Your task to perform on an android device: turn off sleep mode Image 0: 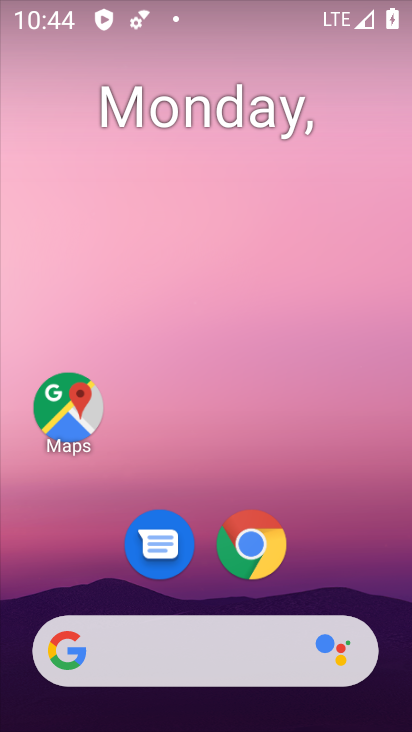
Step 0: click (400, 293)
Your task to perform on an android device: turn off sleep mode Image 1: 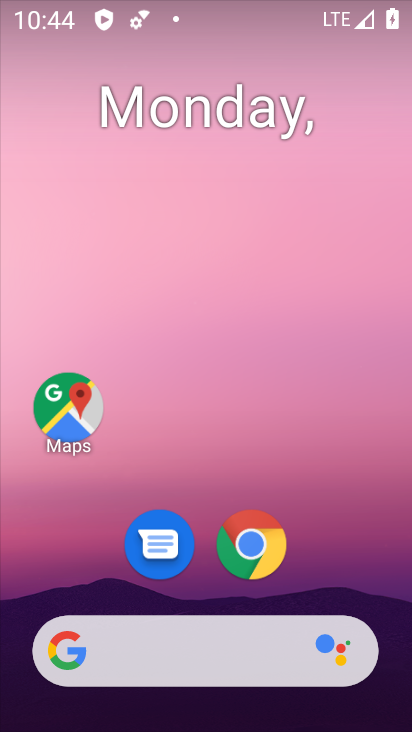
Step 1: drag from (403, 458) to (403, 368)
Your task to perform on an android device: turn off sleep mode Image 2: 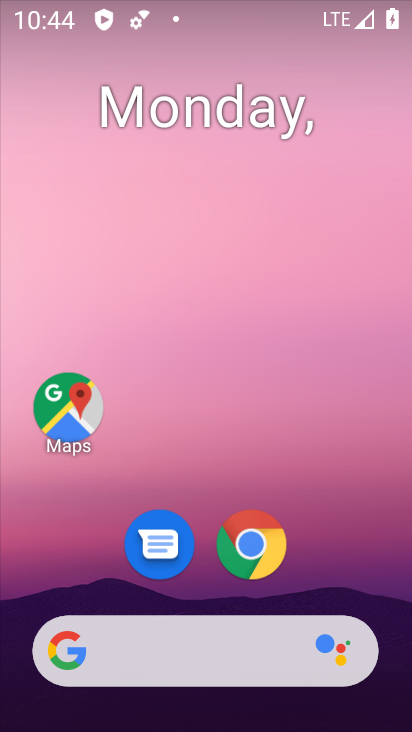
Step 2: drag from (398, 536) to (386, 260)
Your task to perform on an android device: turn off sleep mode Image 3: 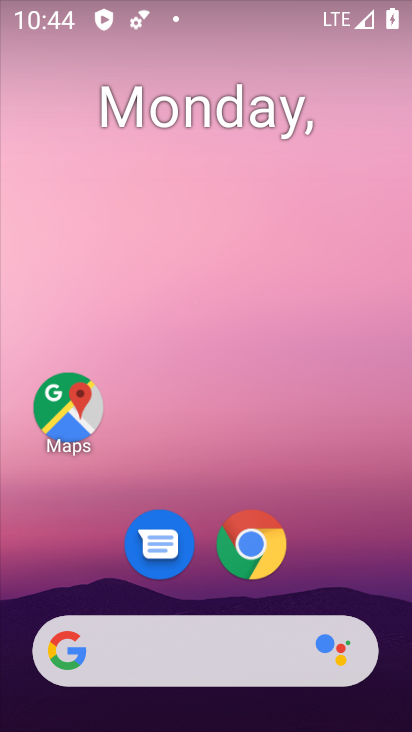
Step 3: drag from (390, 668) to (408, 253)
Your task to perform on an android device: turn off sleep mode Image 4: 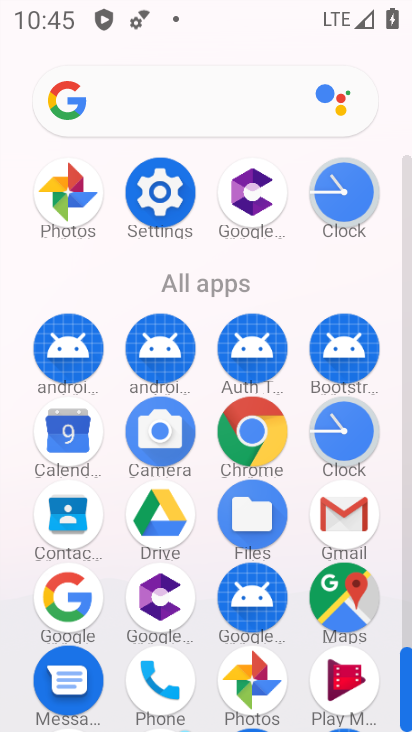
Step 4: click (157, 183)
Your task to perform on an android device: turn off sleep mode Image 5: 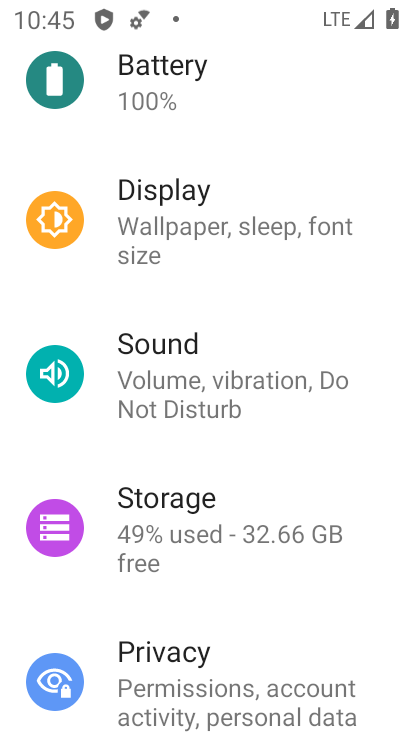
Step 5: click (193, 227)
Your task to perform on an android device: turn off sleep mode Image 6: 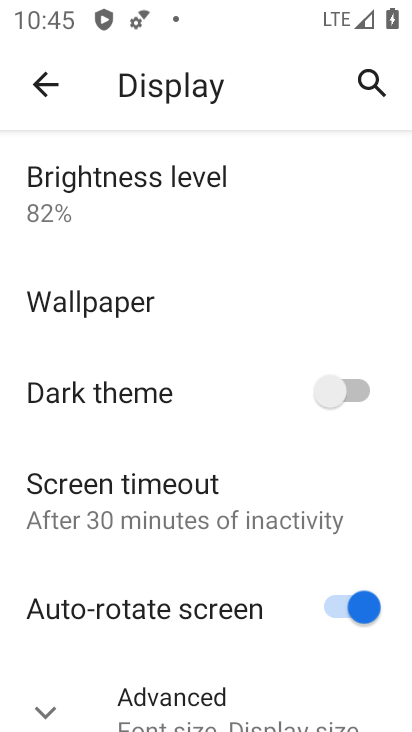
Step 6: click (129, 507)
Your task to perform on an android device: turn off sleep mode Image 7: 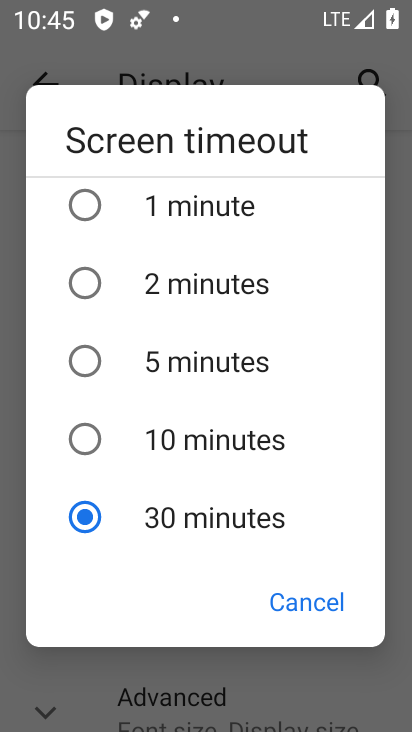
Step 7: task complete